Your task to perform on an android device: Do I have any events tomorrow? Image 0: 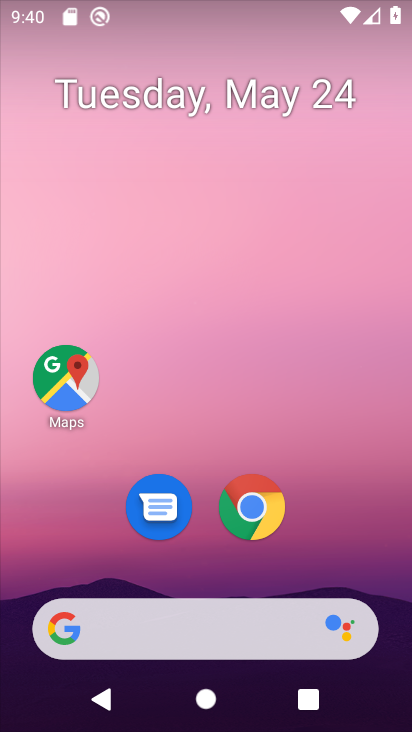
Step 0: drag from (206, 554) to (187, 13)
Your task to perform on an android device: Do I have any events tomorrow? Image 1: 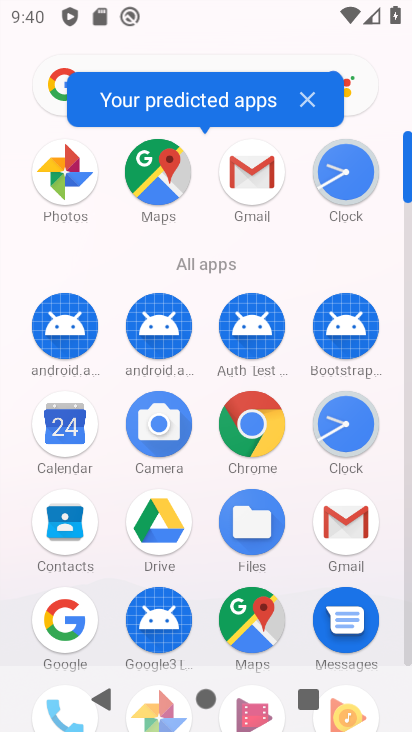
Step 1: drag from (216, 568) to (142, 132)
Your task to perform on an android device: Do I have any events tomorrow? Image 2: 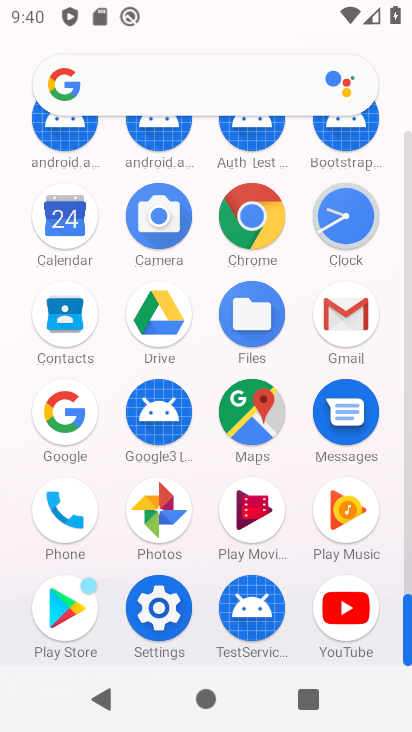
Step 2: click (52, 226)
Your task to perform on an android device: Do I have any events tomorrow? Image 3: 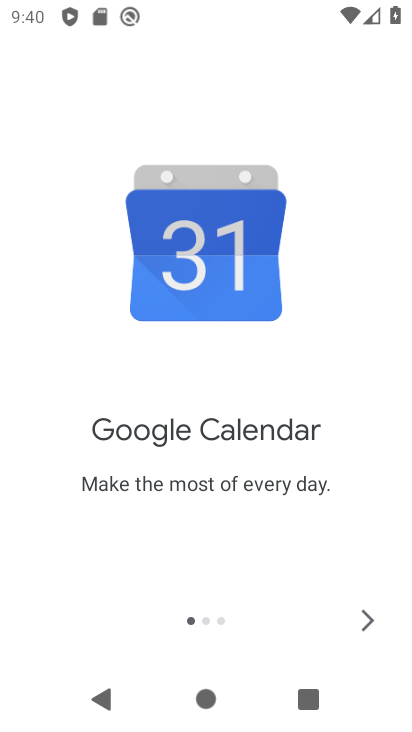
Step 3: click (344, 629)
Your task to perform on an android device: Do I have any events tomorrow? Image 4: 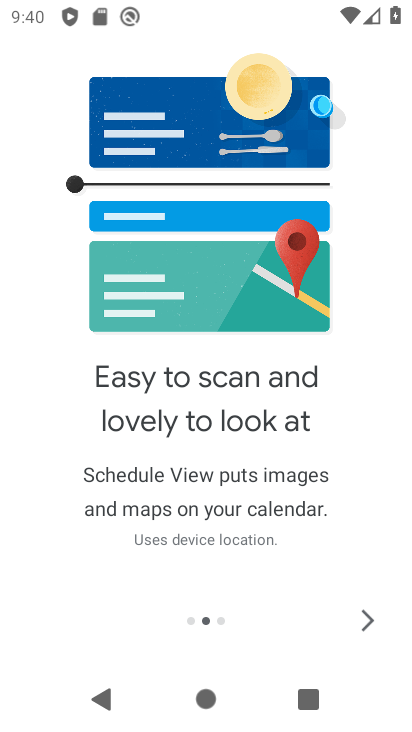
Step 4: click (352, 634)
Your task to perform on an android device: Do I have any events tomorrow? Image 5: 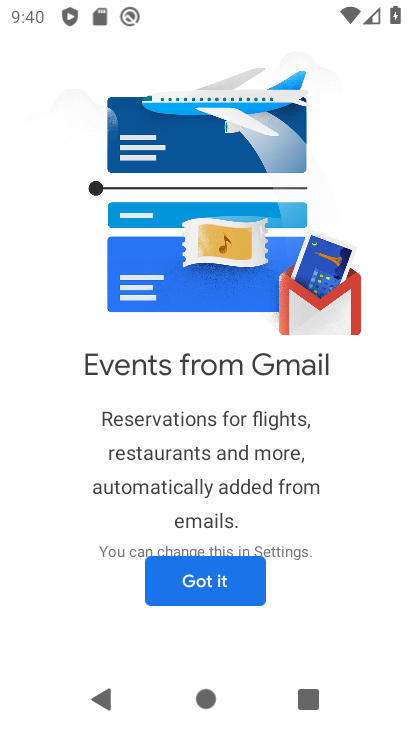
Step 5: click (168, 585)
Your task to perform on an android device: Do I have any events tomorrow? Image 6: 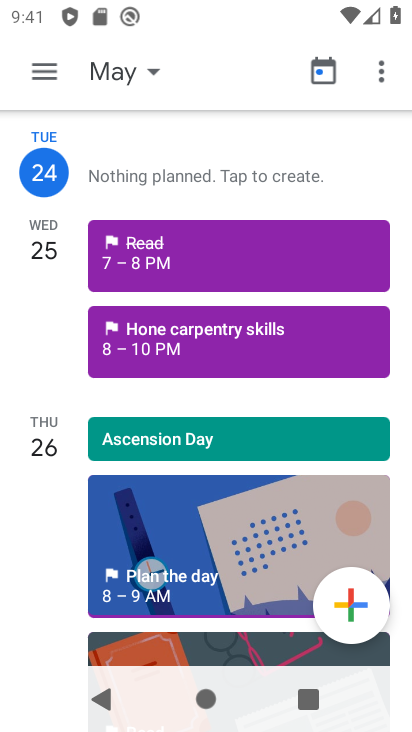
Step 6: click (124, 80)
Your task to perform on an android device: Do I have any events tomorrow? Image 7: 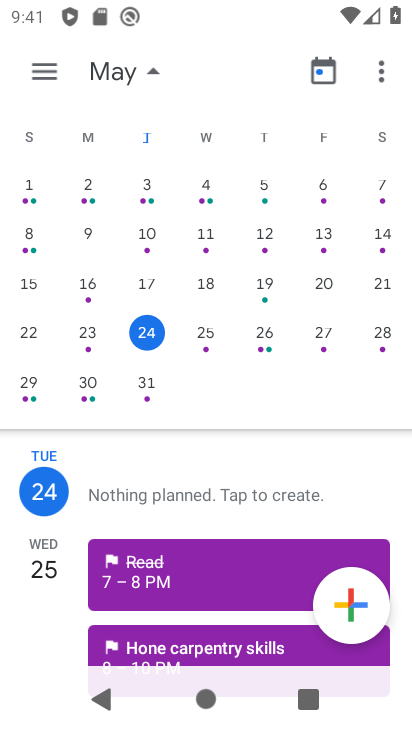
Step 7: click (213, 340)
Your task to perform on an android device: Do I have any events tomorrow? Image 8: 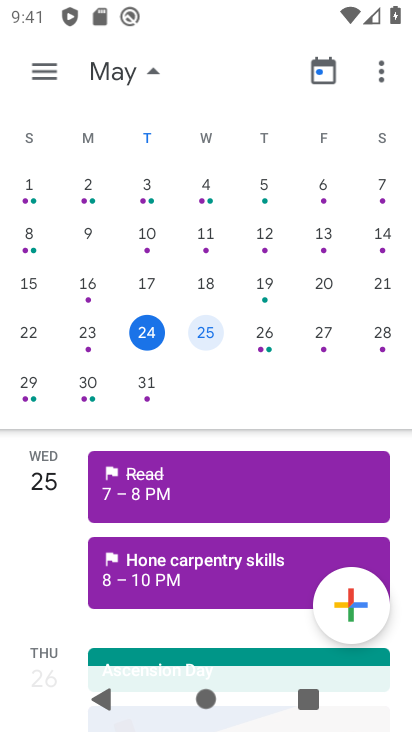
Step 8: task complete